Your task to perform on an android device: Open Google Chrome and open the bookmarks view Image 0: 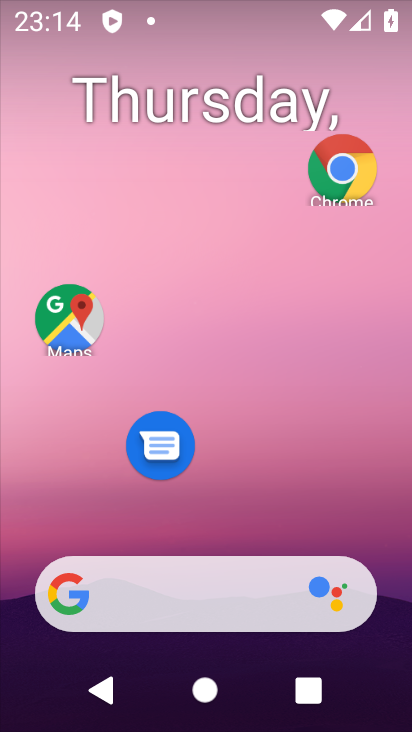
Step 0: drag from (227, 518) to (258, 251)
Your task to perform on an android device: Open Google Chrome and open the bookmarks view Image 1: 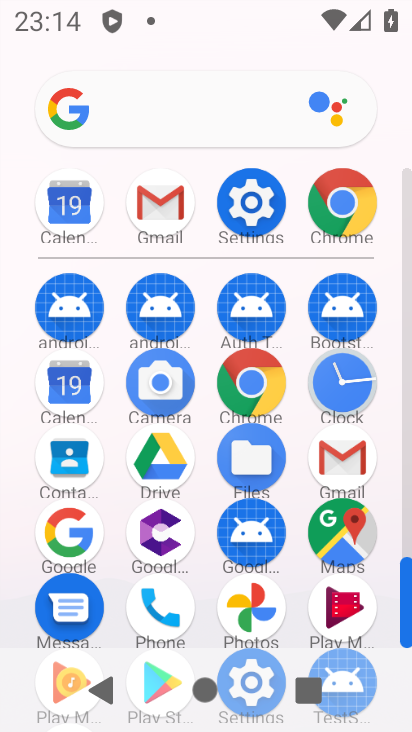
Step 1: click (343, 215)
Your task to perform on an android device: Open Google Chrome and open the bookmarks view Image 2: 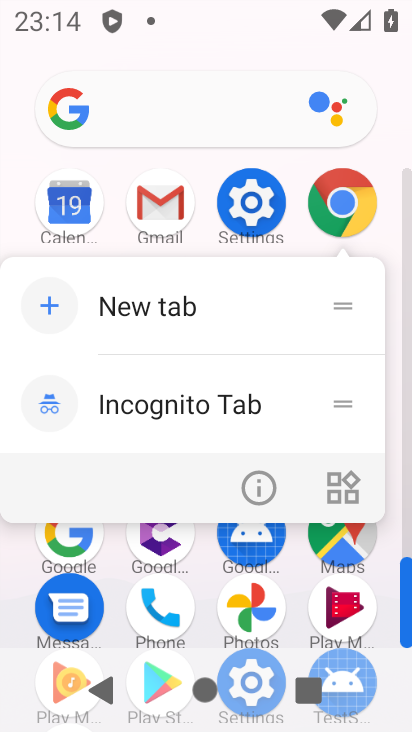
Step 2: click (255, 475)
Your task to perform on an android device: Open Google Chrome and open the bookmarks view Image 3: 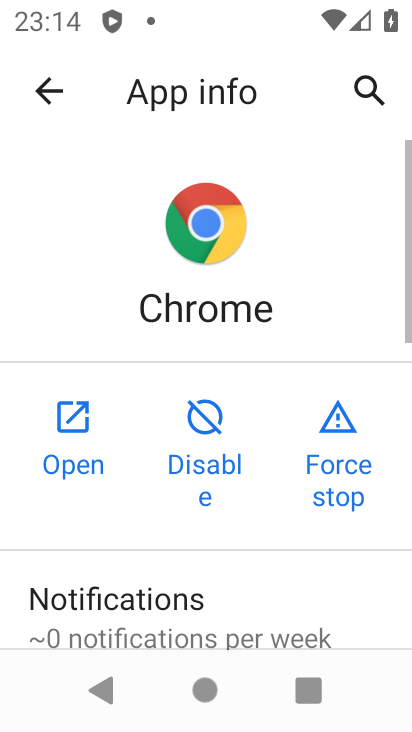
Step 3: click (66, 429)
Your task to perform on an android device: Open Google Chrome and open the bookmarks view Image 4: 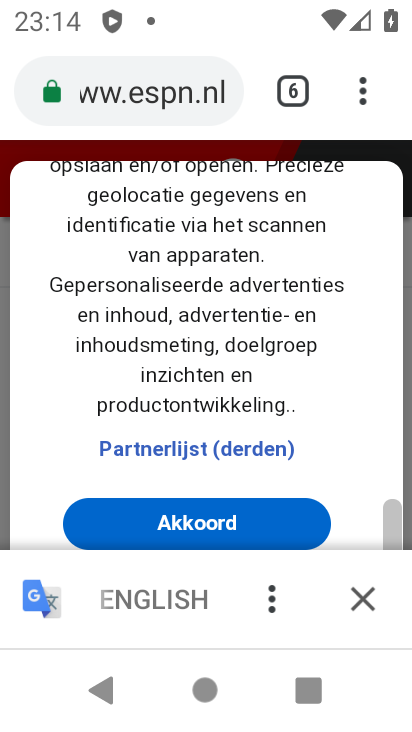
Step 4: click (356, 83)
Your task to perform on an android device: Open Google Chrome and open the bookmarks view Image 5: 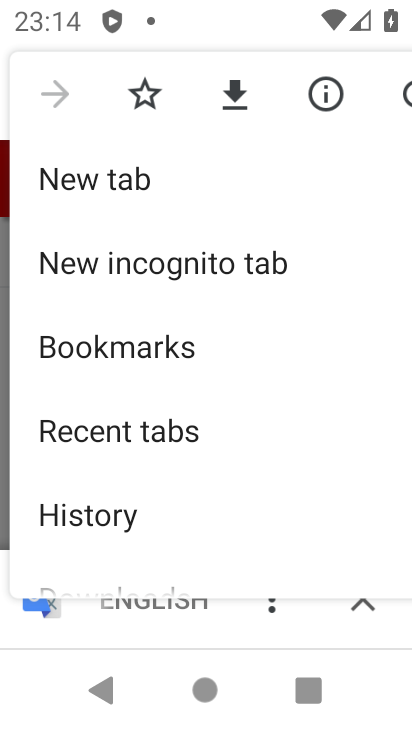
Step 5: drag from (160, 496) to (246, 201)
Your task to perform on an android device: Open Google Chrome and open the bookmarks view Image 6: 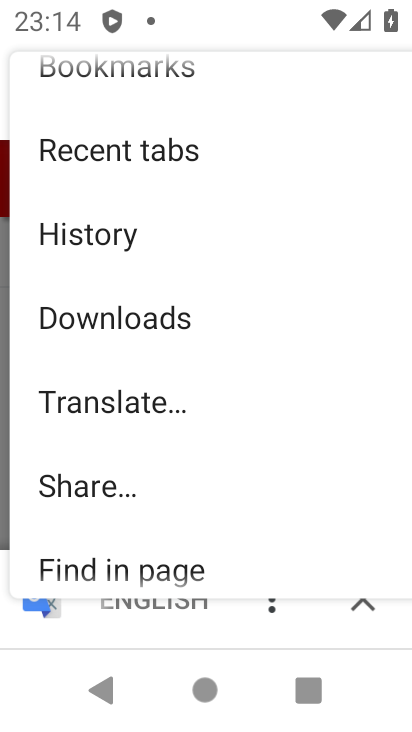
Step 6: drag from (189, 183) to (216, 469)
Your task to perform on an android device: Open Google Chrome and open the bookmarks view Image 7: 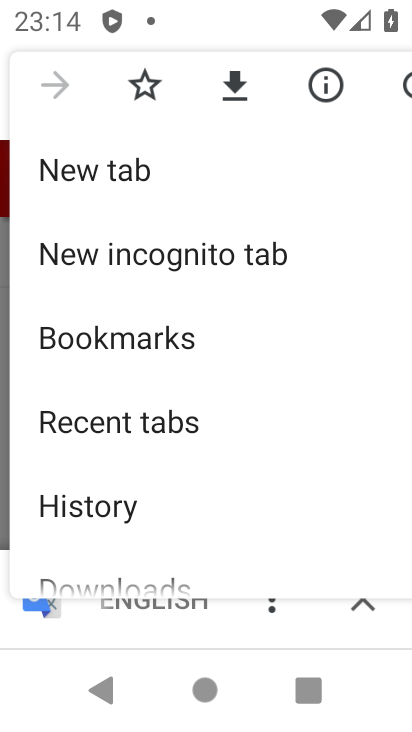
Step 7: click (220, 348)
Your task to perform on an android device: Open Google Chrome and open the bookmarks view Image 8: 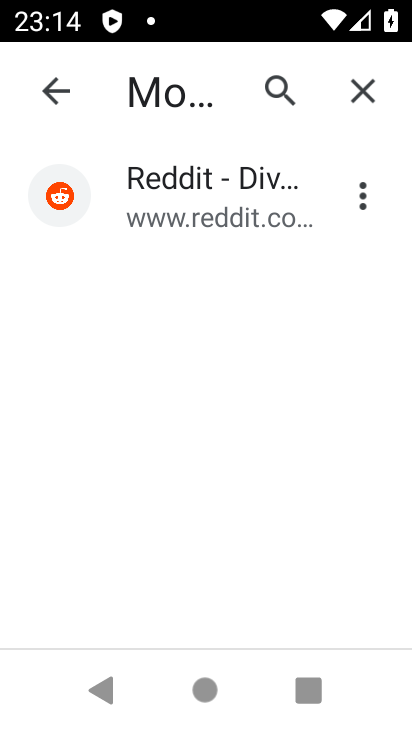
Step 8: task complete